Your task to perform on an android device: Open internet settings Image 0: 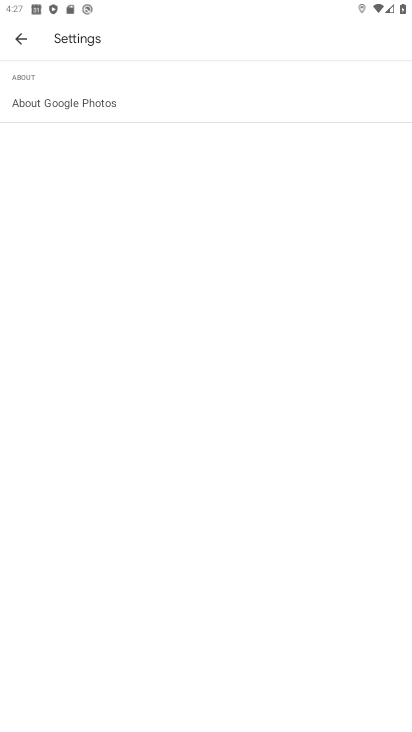
Step 0: press home button
Your task to perform on an android device: Open internet settings Image 1: 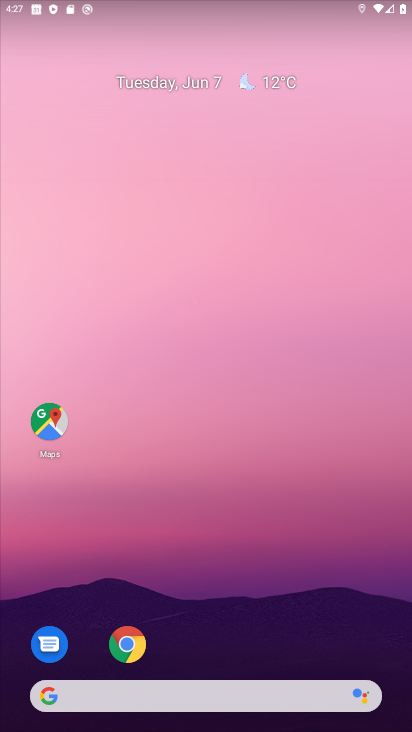
Step 1: drag from (260, 635) to (258, 113)
Your task to perform on an android device: Open internet settings Image 2: 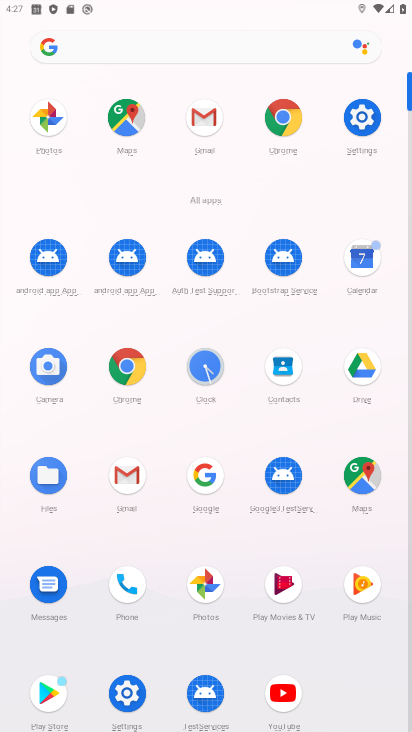
Step 2: click (359, 115)
Your task to perform on an android device: Open internet settings Image 3: 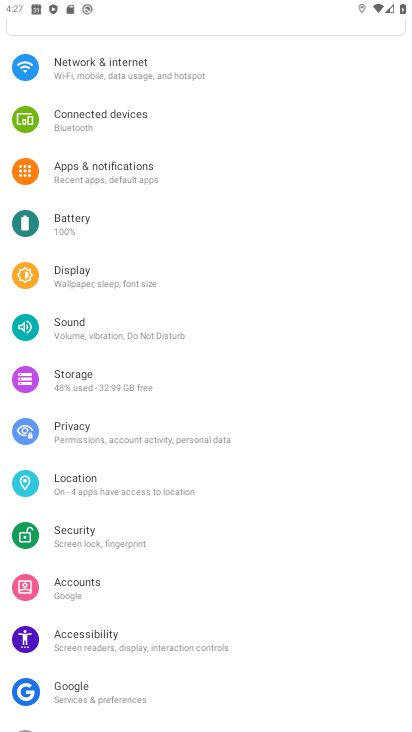
Step 3: click (176, 74)
Your task to perform on an android device: Open internet settings Image 4: 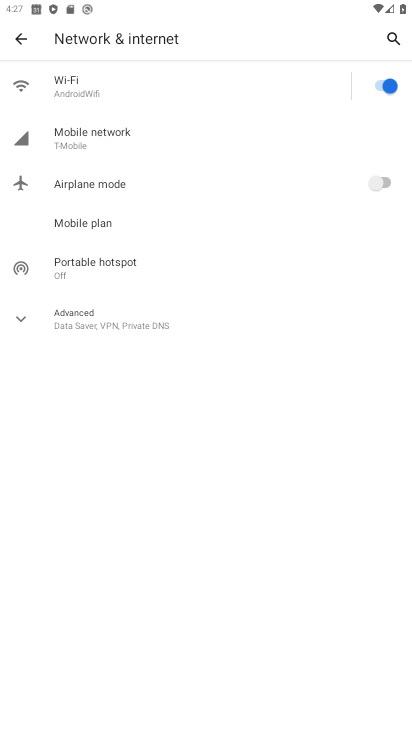
Step 4: task complete